Your task to perform on an android device: Show me productivity apps on the Play Store Image 0: 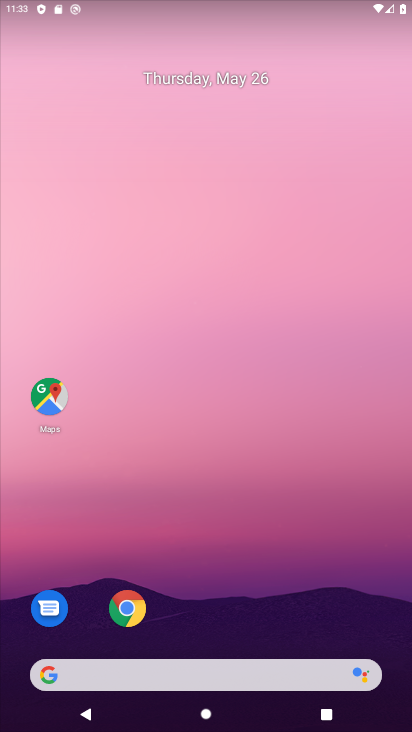
Step 0: drag from (243, 512) to (180, 14)
Your task to perform on an android device: Show me productivity apps on the Play Store Image 1: 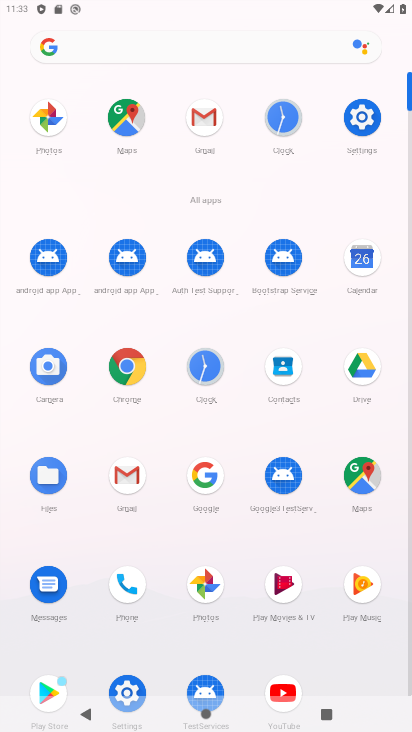
Step 1: drag from (19, 487) to (31, 264)
Your task to perform on an android device: Show me productivity apps on the Play Store Image 2: 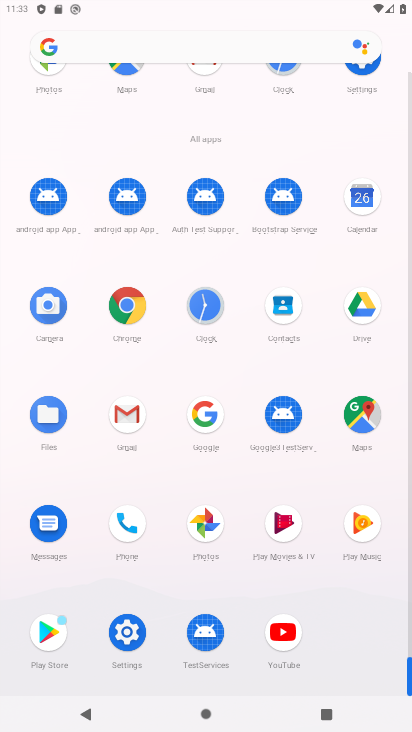
Step 2: click (48, 625)
Your task to perform on an android device: Show me productivity apps on the Play Store Image 3: 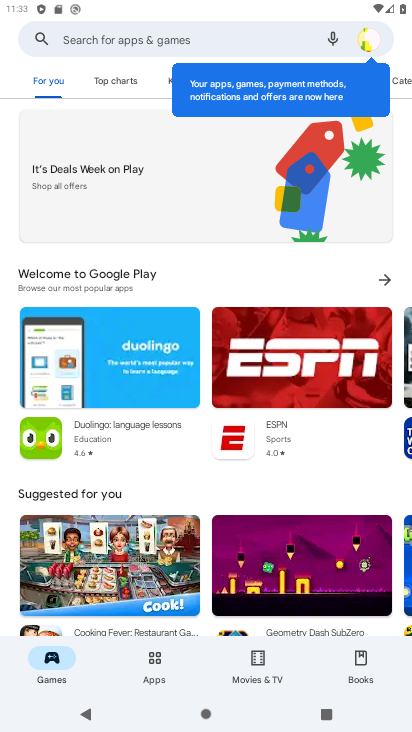
Step 3: click (156, 655)
Your task to perform on an android device: Show me productivity apps on the Play Store Image 4: 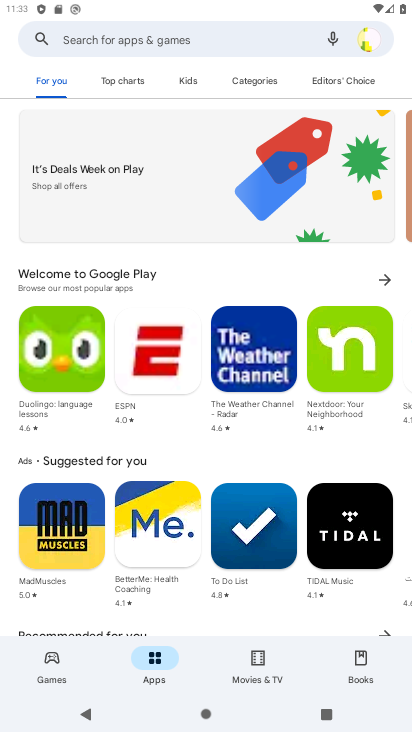
Step 4: click (263, 78)
Your task to perform on an android device: Show me productivity apps on the Play Store Image 5: 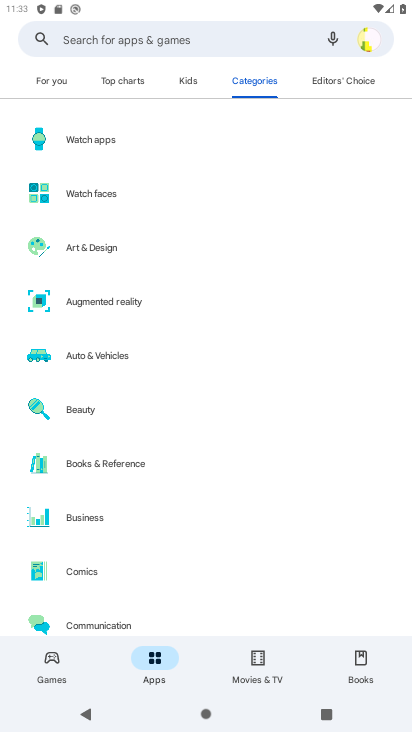
Step 5: drag from (202, 478) to (202, 154)
Your task to perform on an android device: Show me productivity apps on the Play Store Image 6: 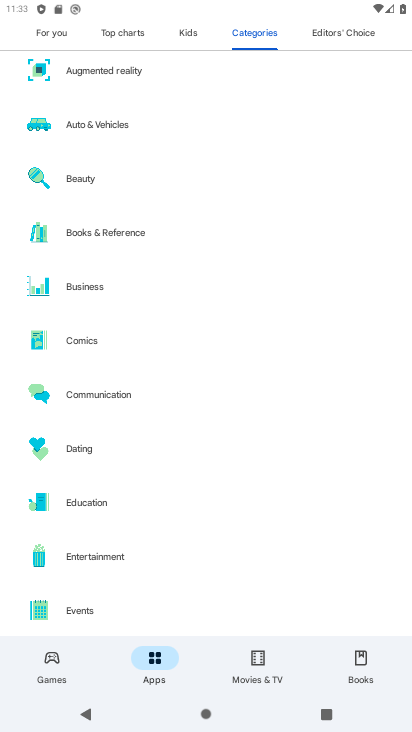
Step 6: drag from (233, 503) to (230, 153)
Your task to perform on an android device: Show me productivity apps on the Play Store Image 7: 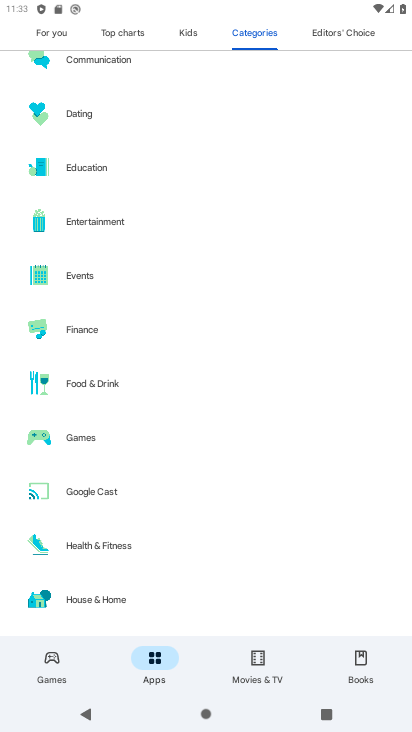
Step 7: drag from (178, 357) to (156, 140)
Your task to perform on an android device: Show me productivity apps on the Play Store Image 8: 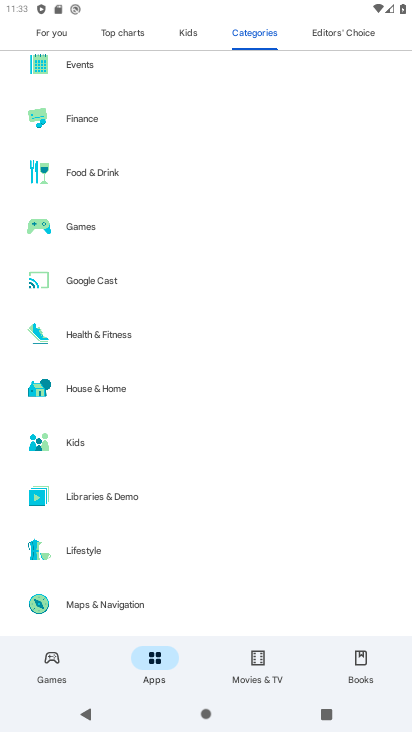
Step 8: drag from (185, 550) to (208, 180)
Your task to perform on an android device: Show me productivity apps on the Play Store Image 9: 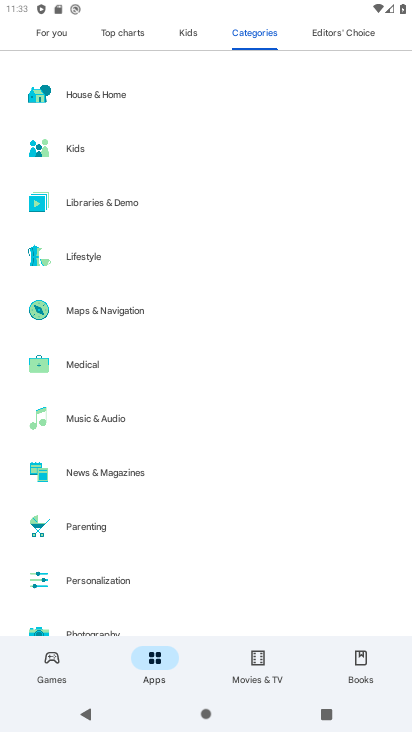
Step 9: drag from (198, 588) to (214, 307)
Your task to perform on an android device: Show me productivity apps on the Play Store Image 10: 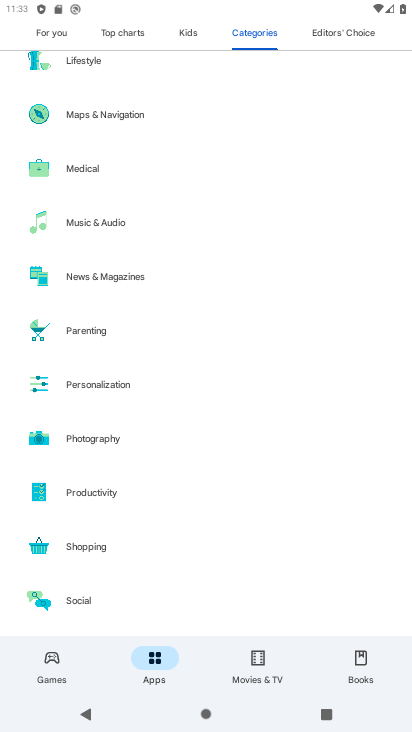
Step 10: click (109, 494)
Your task to perform on an android device: Show me productivity apps on the Play Store Image 11: 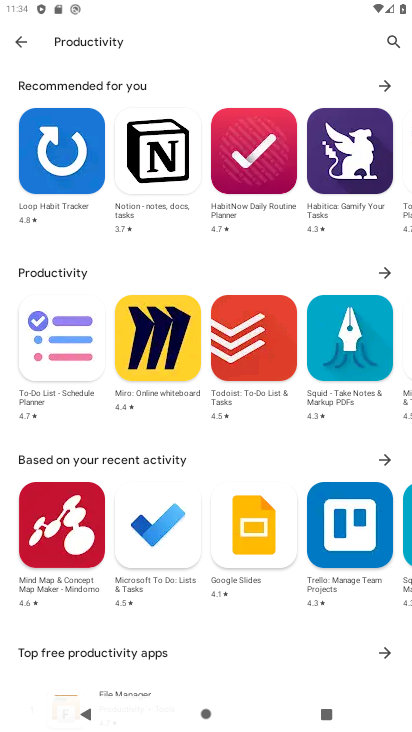
Step 11: task complete